Your task to perform on an android device: Add "bose quietcomfort 35" to the cart on bestbuy.com Image 0: 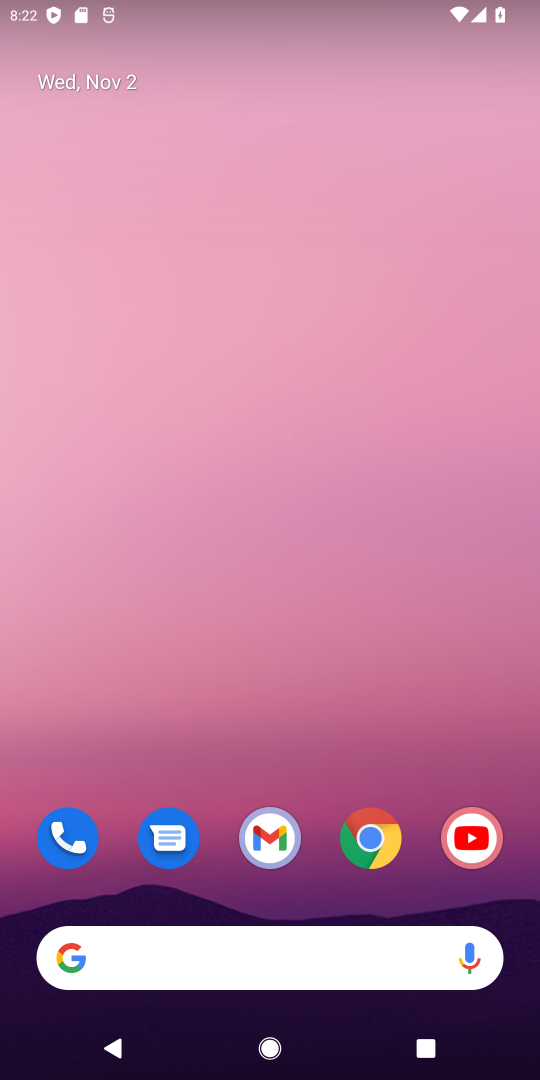
Step 0: click (378, 862)
Your task to perform on an android device: Add "bose quietcomfort 35" to the cart on bestbuy.com Image 1: 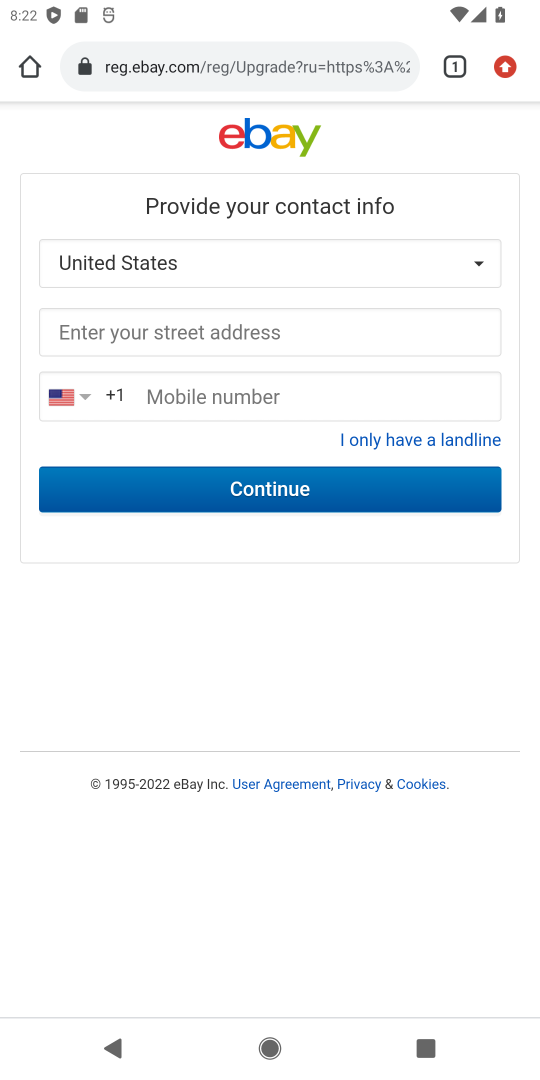
Step 1: click (260, 50)
Your task to perform on an android device: Add "bose quietcomfort 35" to the cart on bestbuy.com Image 2: 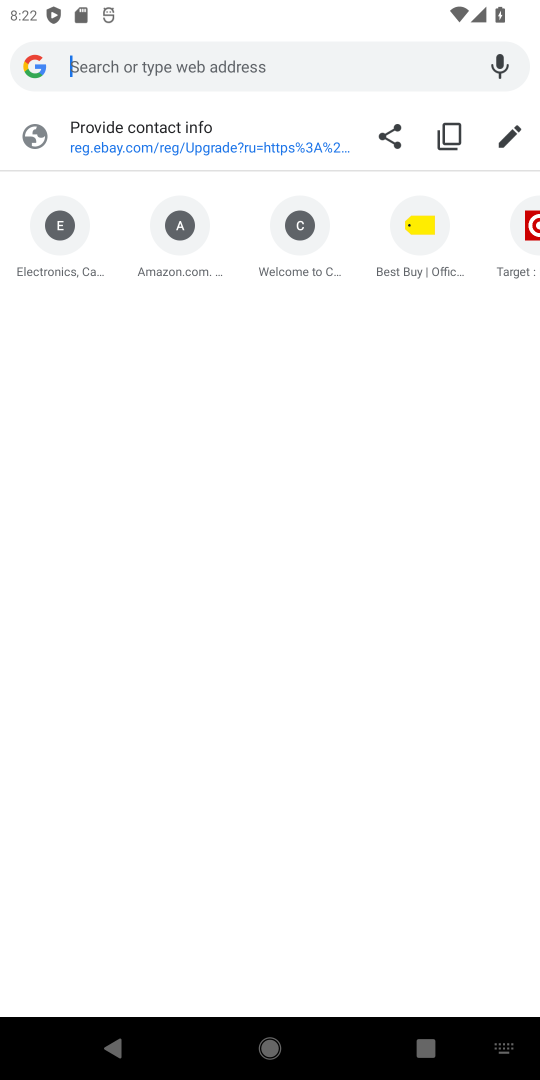
Step 2: type "bestbuy.com"
Your task to perform on an android device: Add "bose quietcomfort 35" to the cart on bestbuy.com Image 3: 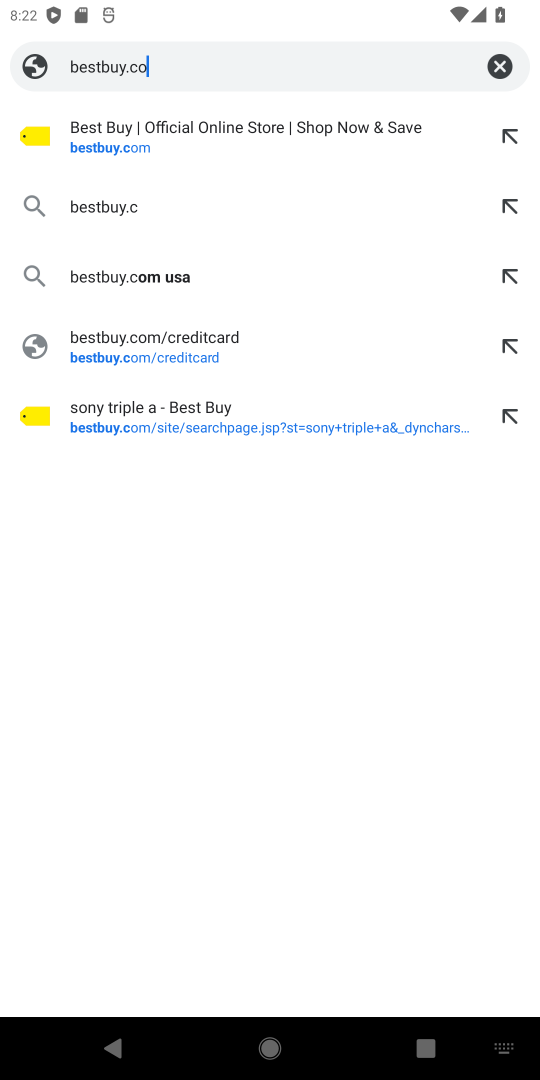
Step 3: type ""
Your task to perform on an android device: Add "bose quietcomfort 35" to the cart on bestbuy.com Image 4: 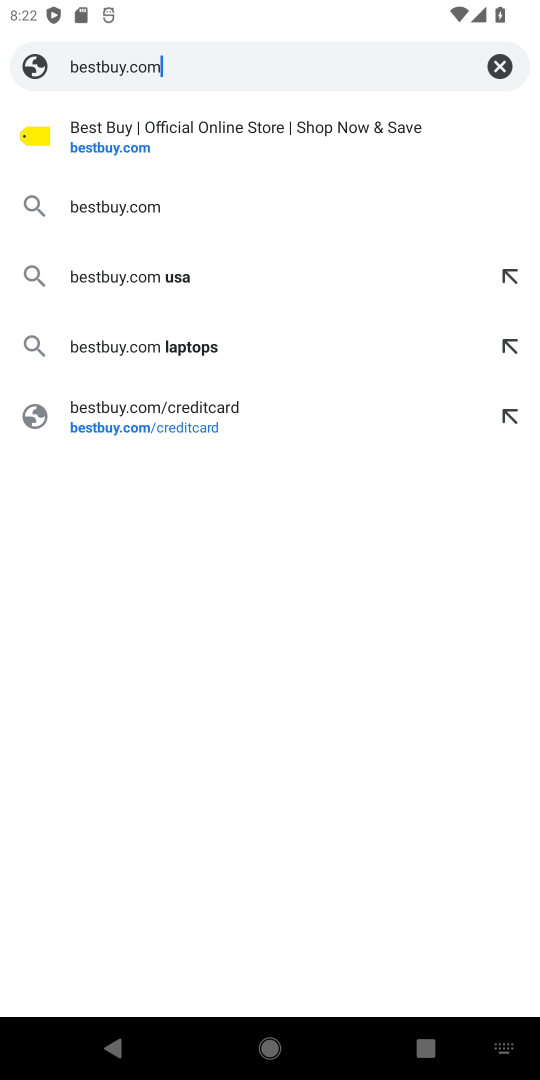
Step 4: press enter
Your task to perform on an android device: Add "bose quietcomfort 35" to the cart on bestbuy.com Image 5: 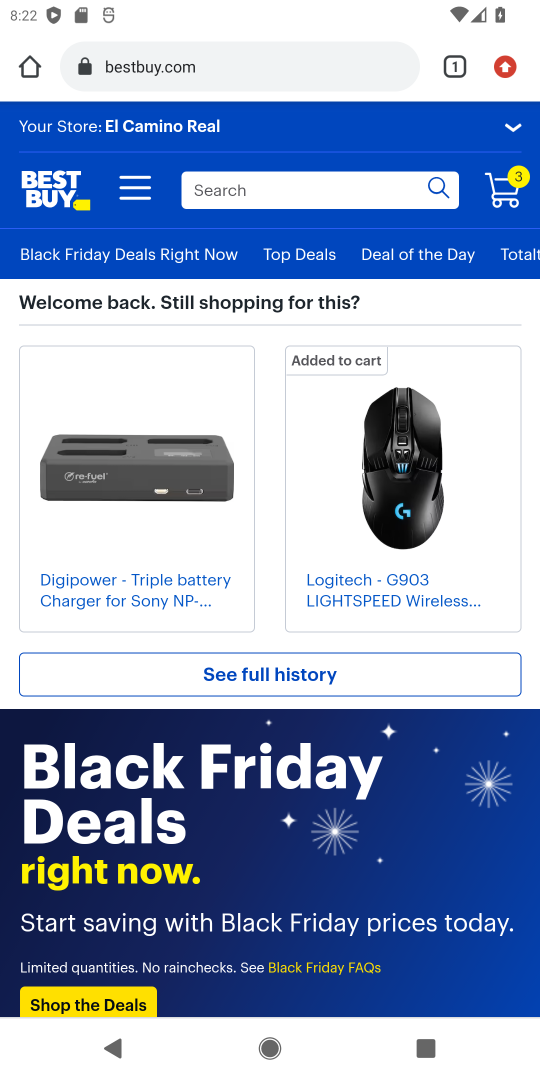
Step 5: click (324, 195)
Your task to perform on an android device: Add "bose quietcomfort 35" to the cart on bestbuy.com Image 6: 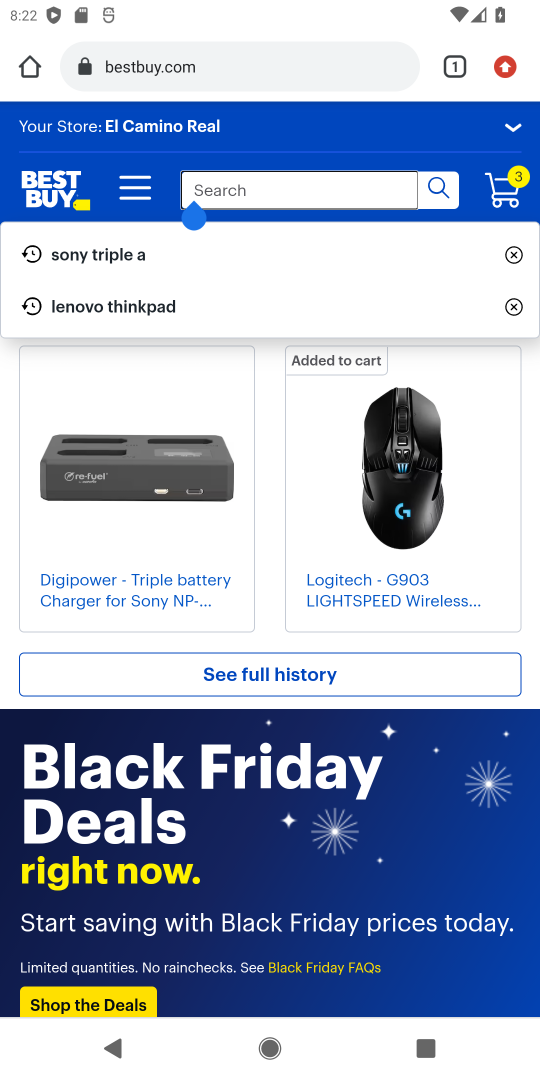
Step 6: type "bose quietcomfort 35"
Your task to perform on an android device: Add "bose quietcomfort 35" to the cart on bestbuy.com Image 7: 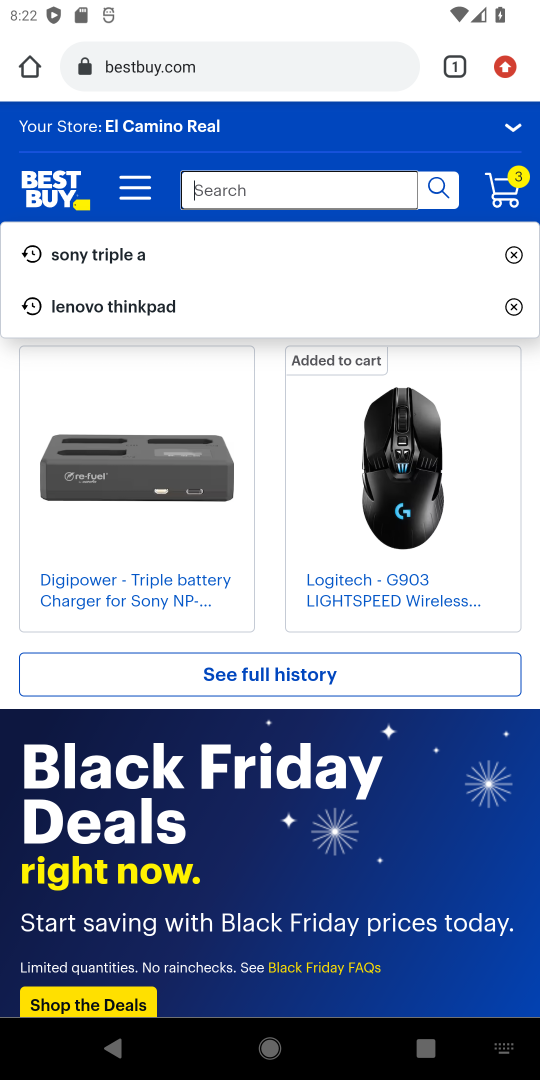
Step 7: type ""
Your task to perform on an android device: Add "bose quietcomfort 35" to the cart on bestbuy.com Image 8: 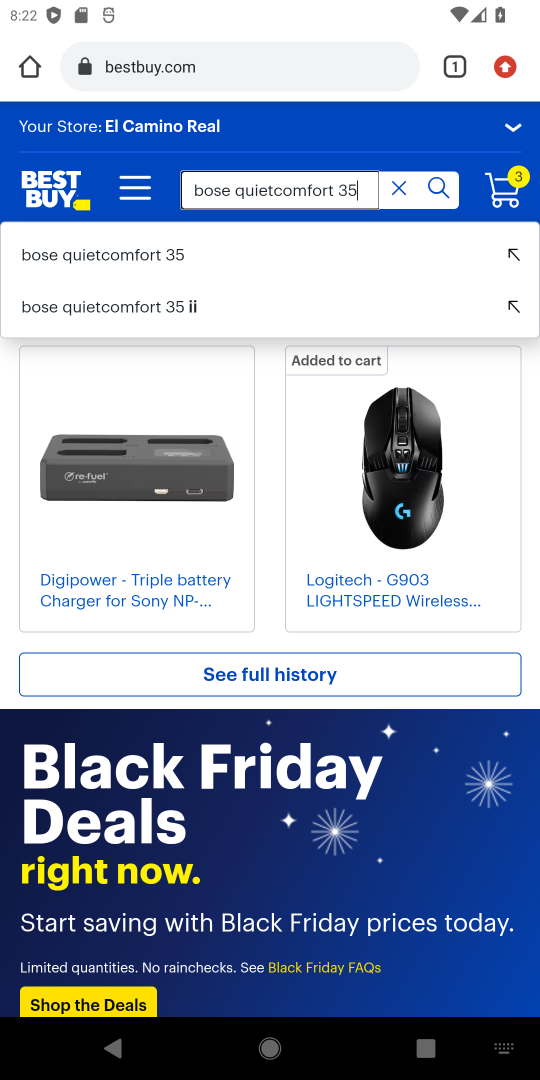
Step 8: press enter
Your task to perform on an android device: Add "bose quietcomfort 35" to the cart on bestbuy.com Image 9: 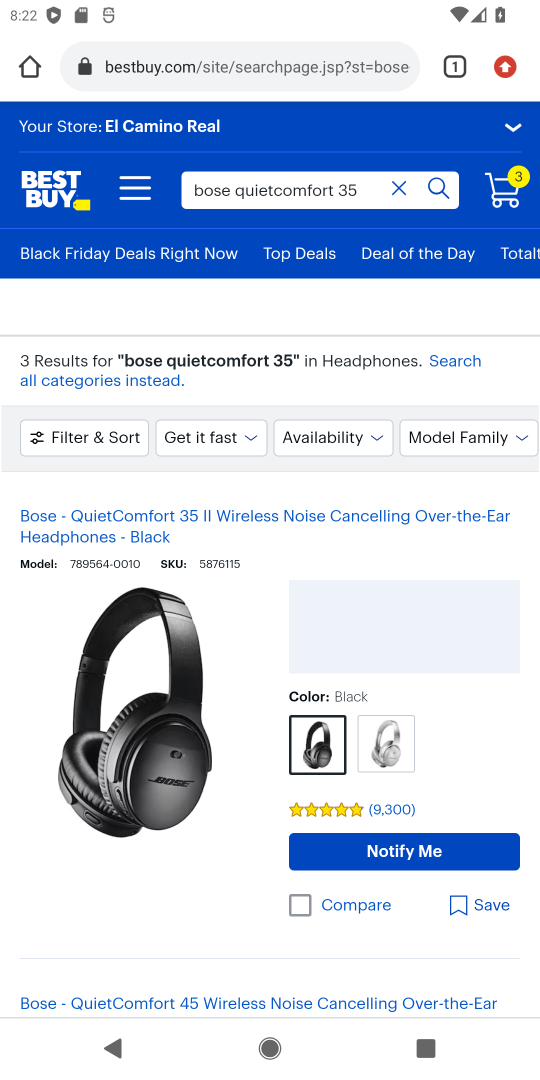
Step 9: drag from (315, 924) to (320, 486)
Your task to perform on an android device: Add "bose quietcomfort 35" to the cart on bestbuy.com Image 10: 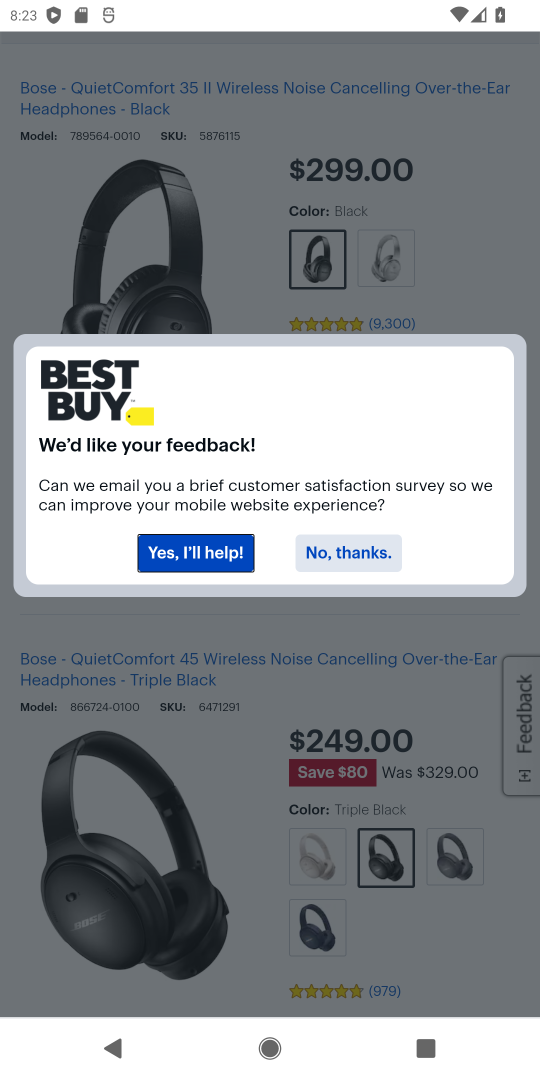
Step 10: click (363, 545)
Your task to perform on an android device: Add "bose quietcomfort 35" to the cart on bestbuy.com Image 11: 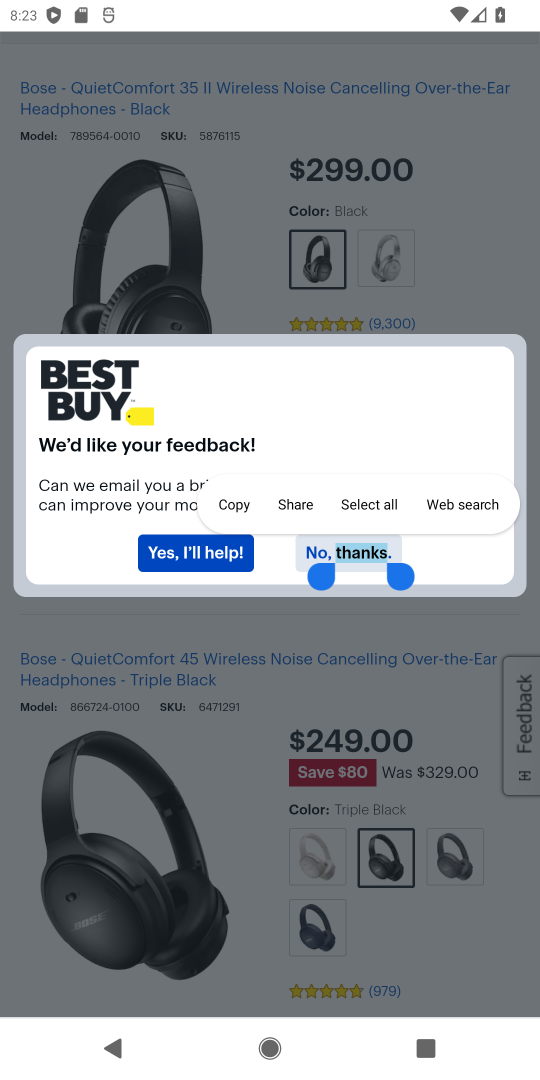
Step 11: click (316, 554)
Your task to perform on an android device: Add "bose quietcomfort 35" to the cart on bestbuy.com Image 12: 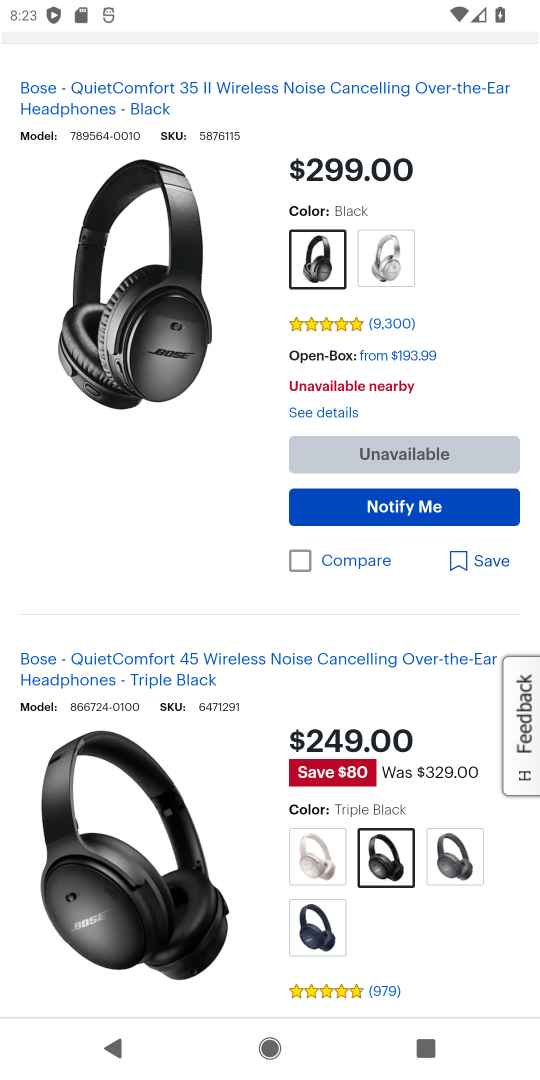
Step 12: drag from (379, 713) to (385, 873)
Your task to perform on an android device: Add "bose quietcomfort 35" to the cart on bestbuy.com Image 13: 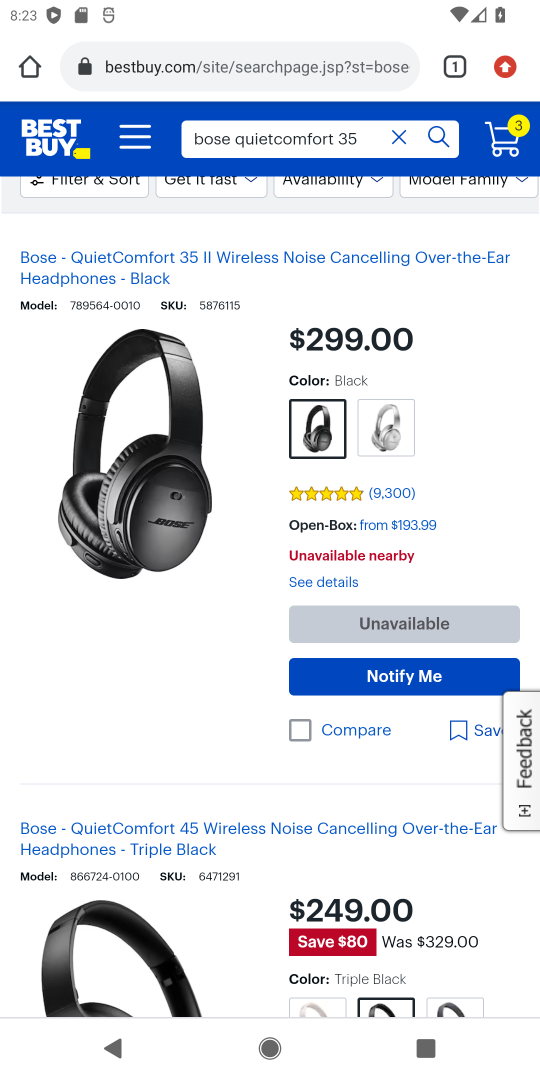
Step 13: click (367, 267)
Your task to perform on an android device: Add "bose quietcomfort 35" to the cart on bestbuy.com Image 14: 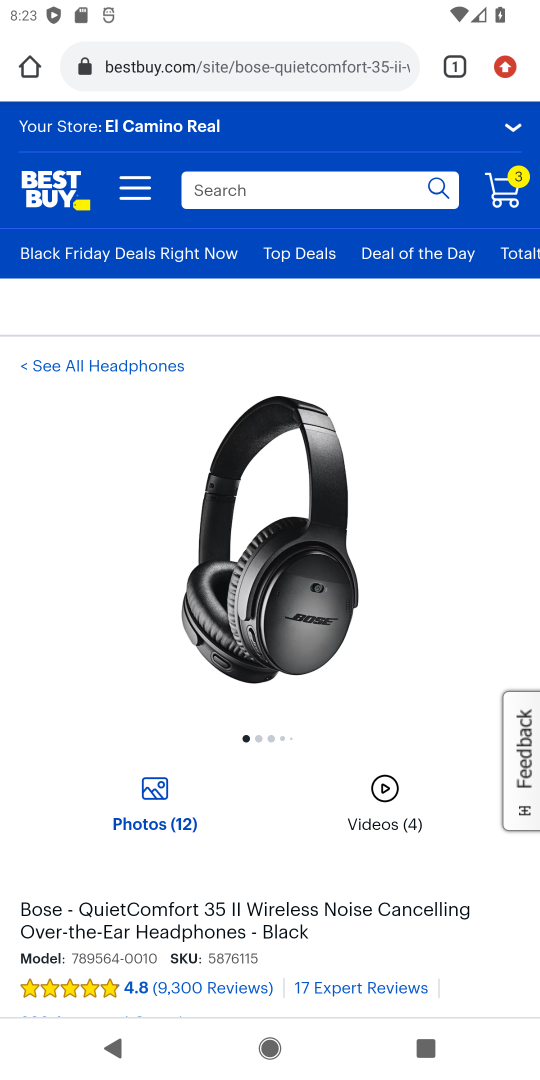
Step 14: task complete